Your task to perform on an android device: Go to Maps Image 0: 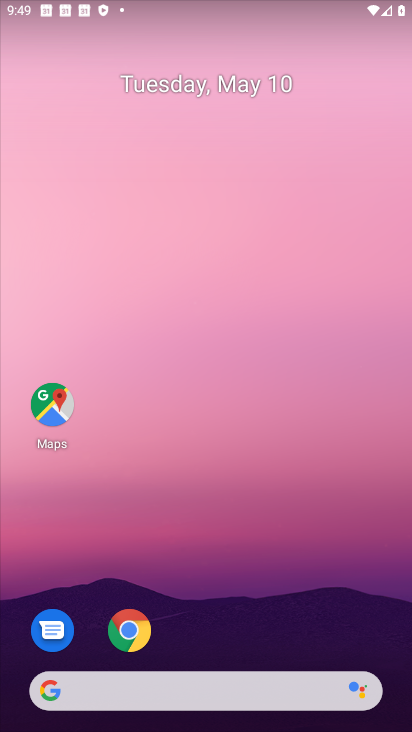
Step 0: click (49, 397)
Your task to perform on an android device: Go to Maps Image 1: 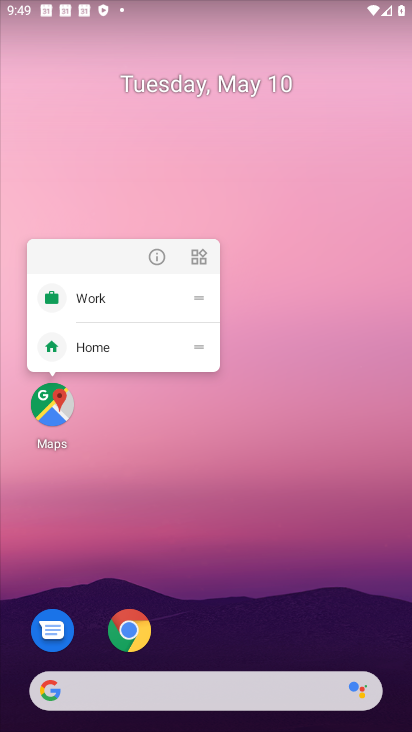
Step 1: click (49, 397)
Your task to perform on an android device: Go to Maps Image 2: 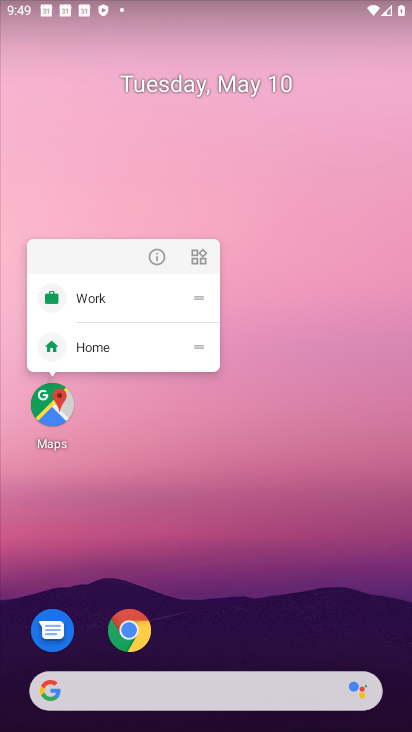
Step 2: click (49, 397)
Your task to perform on an android device: Go to Maps Image 3: 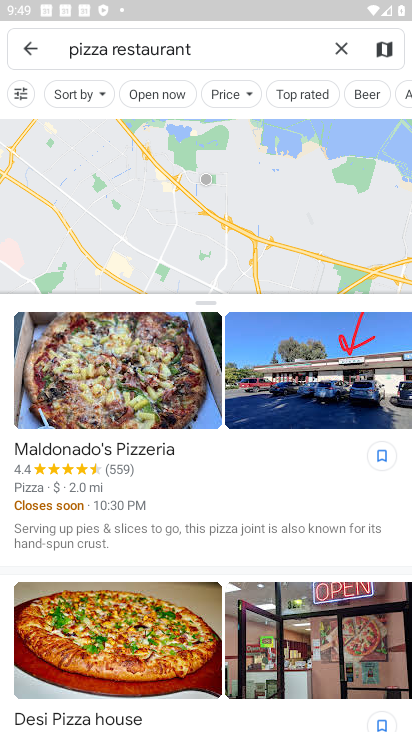
Step 3: click (346, 54)
Your task to perform on an android device: Go to Maps Image 4: 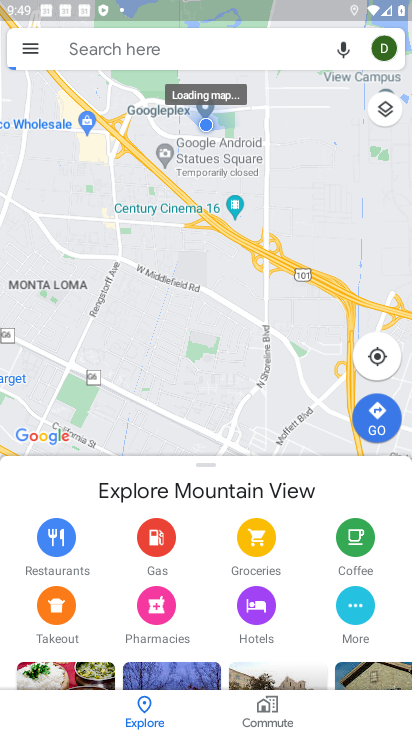
Step 4: task complete